Your task to perform on an android device: set the timer Image 0: 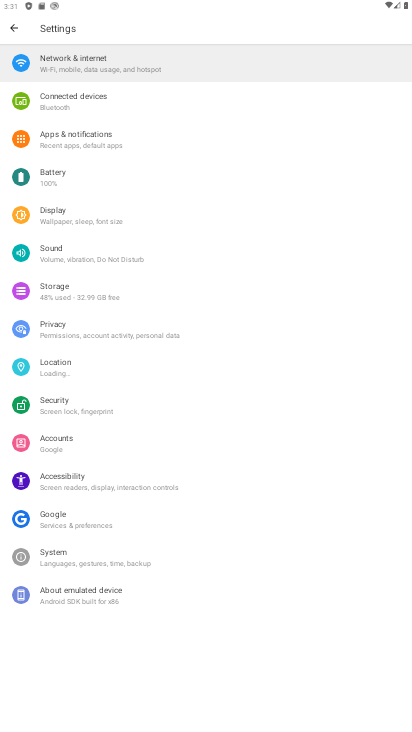
Step 0: press home button
Your task to perform on an android device: set the timer Image 1: 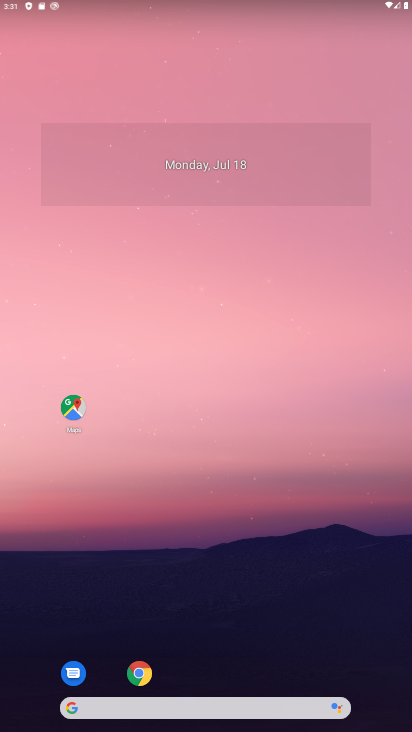
Step 1: drag from (202, 567) to (278, 150)
Your task to perform on an android device: set the timer Image 2: 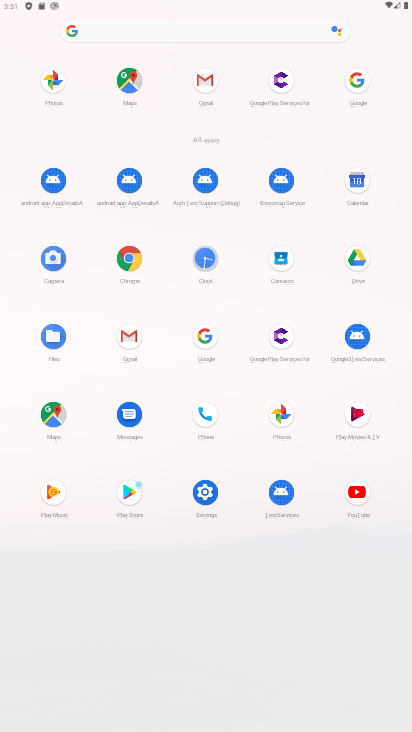
Step 2: click (210, 254)
Your task to perform on an android device: set the timer Image 3: 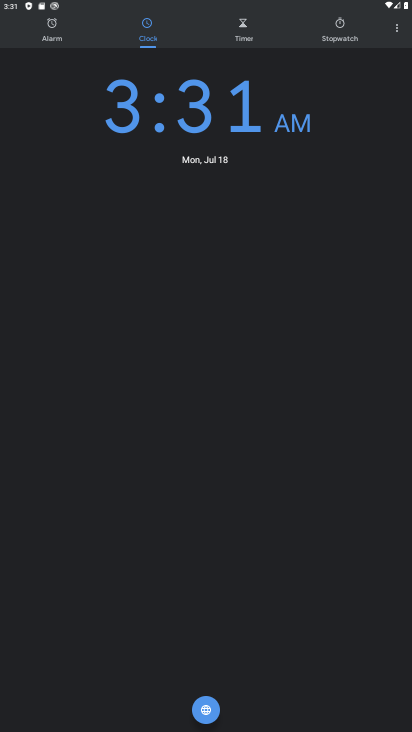
Step 3: click (258, 32)
Your task to perform on an android device: set the timer Image 4: 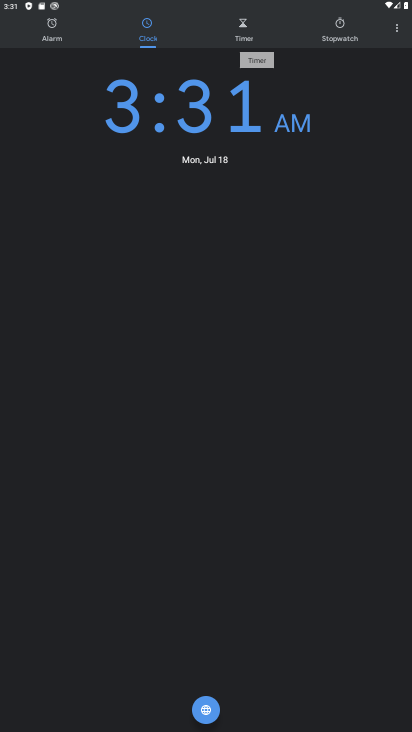
Step 4: click (240, 34)
Your task to perform on an android device: set the timer Image 5: 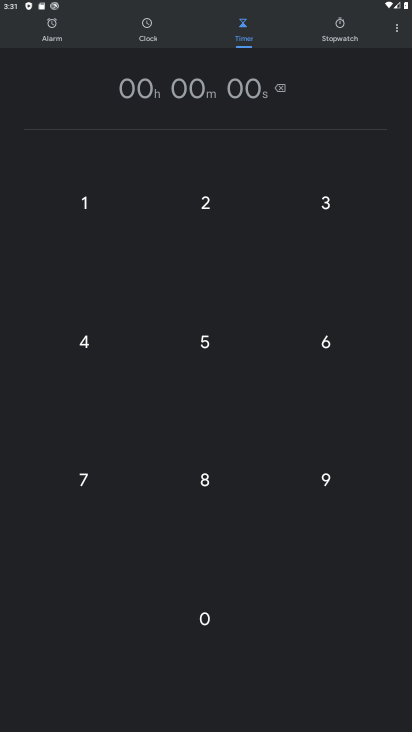
Step 5: click (216, 213)
Your task to perform on an android device: set the timer Image 6: 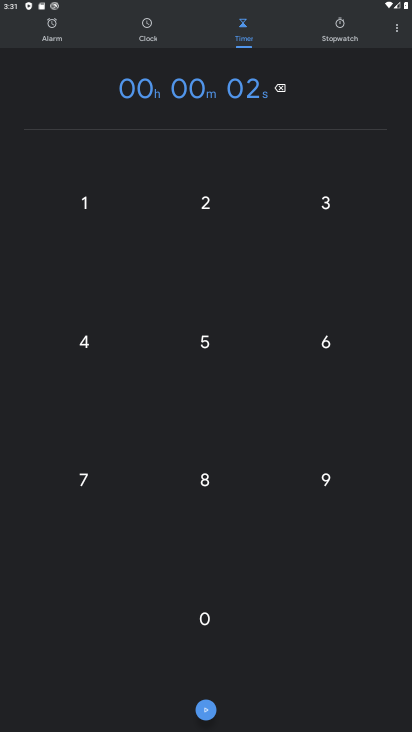
Step 6: click (199, 588)
Your task to perform on an android device: set the timer Image 7: 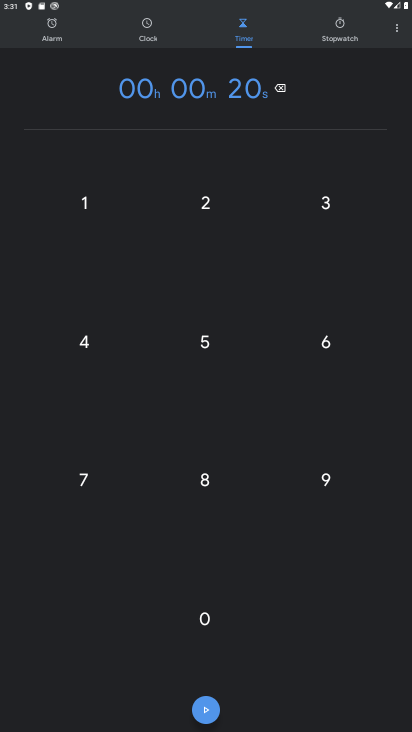
Step 7: click (197, 215)
Your task to perform on an android device: set the timer Image 8: 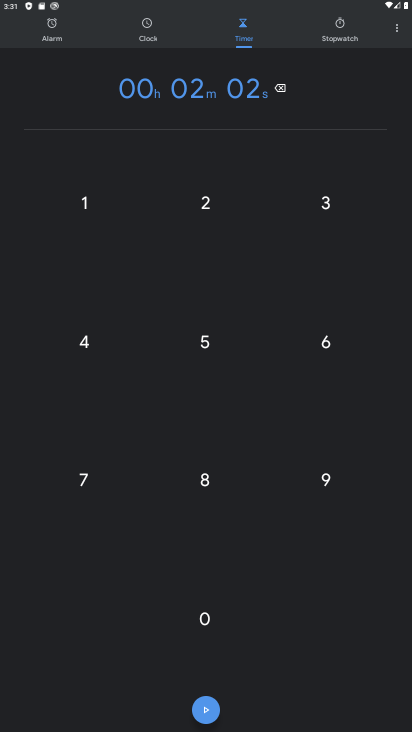
Step 8: click (217, 716)
Your task to perform on an android device: set the timer Image 9: 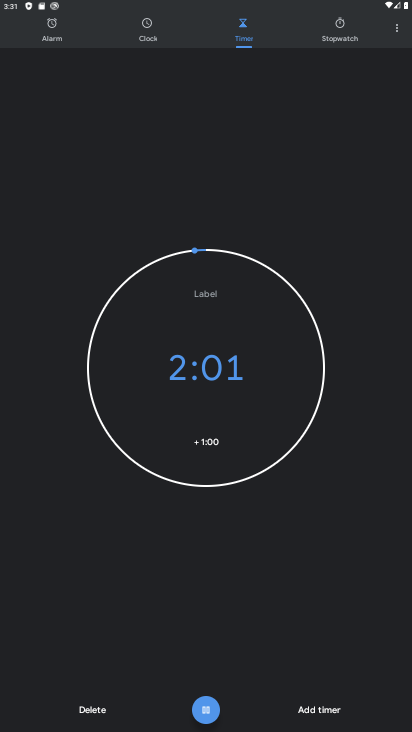
Step 9: task complete